Your task to perform on an android device: Search for Mexican restaurants on Maps Image 0: 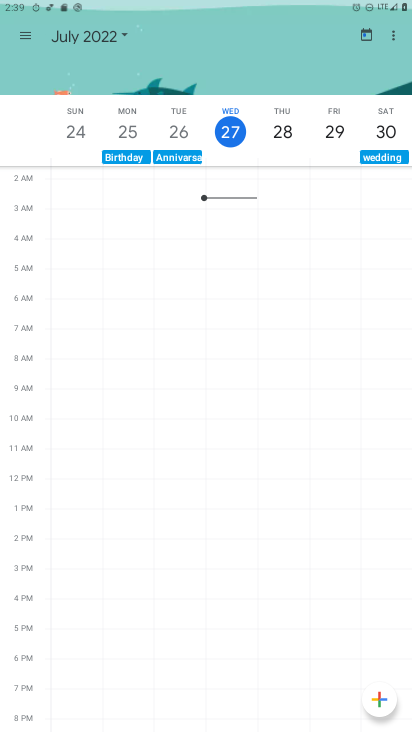
Step 0: press home button
Your task to perform on an android device: Search for Mexican restaurants on Maps Image 1: 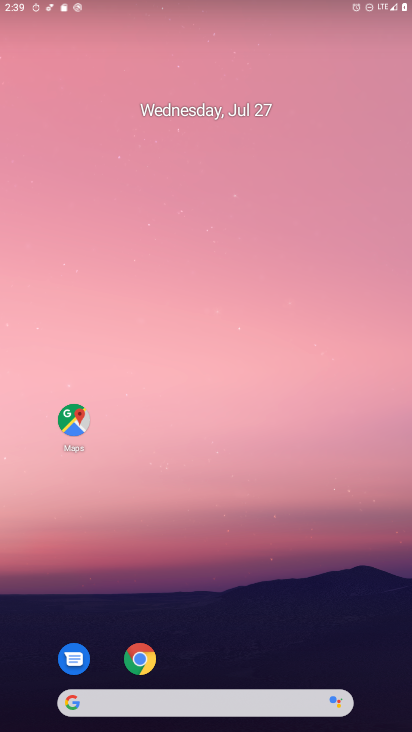
Step 1: drag from (307, 511) to (246, 122)
Your task to perform on an android device: Search for Mexican restaurants on Maps Image 2: 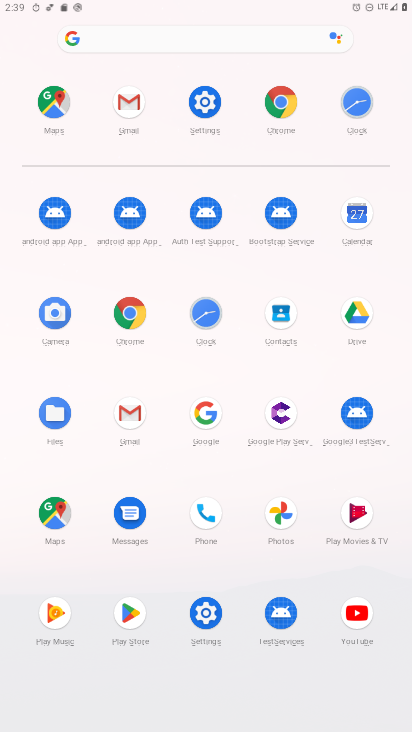
Step 2: click (59, 105)
Your task to perform on an android device: Search for Mexican restaurants on Maps Image 3: 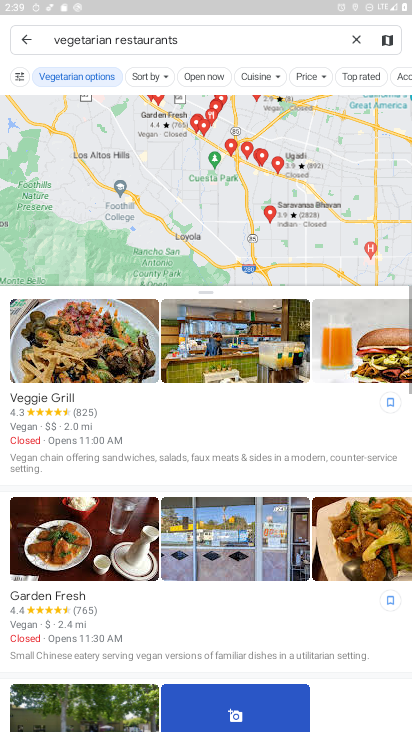
Step 3: click (352, 39)
Your task to perform on an android device: Search for Mexican restaurants on Maps Image 4: 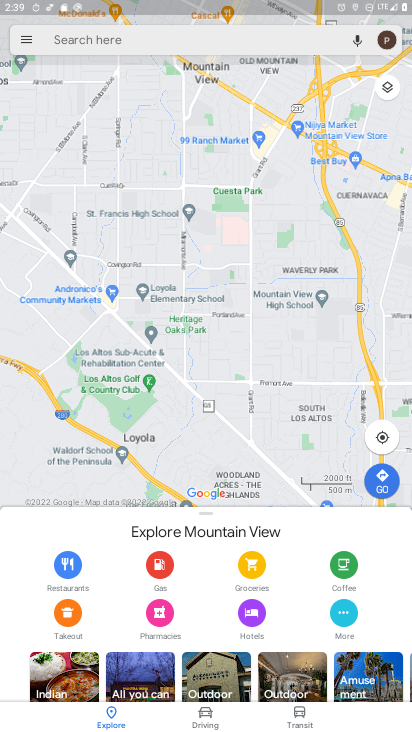
Step 4: click (265, 48)
Your task to perform on an android device: Search for Mexican restaurants on Maps Image 5: 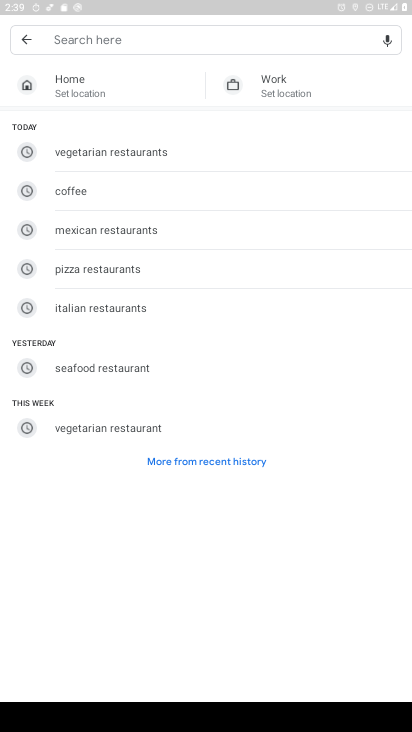
Step 5: type "Mexican "
Your task to perform on an android device: Search for Mexican restaurants on Maps Image 6: 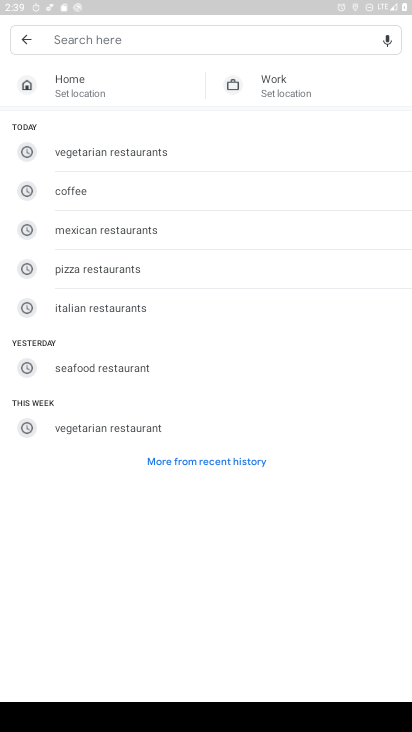
Step 6: click (123, 237)
Your task to perform on an android device: Search for Mexican restaurants on Maps Image 7: 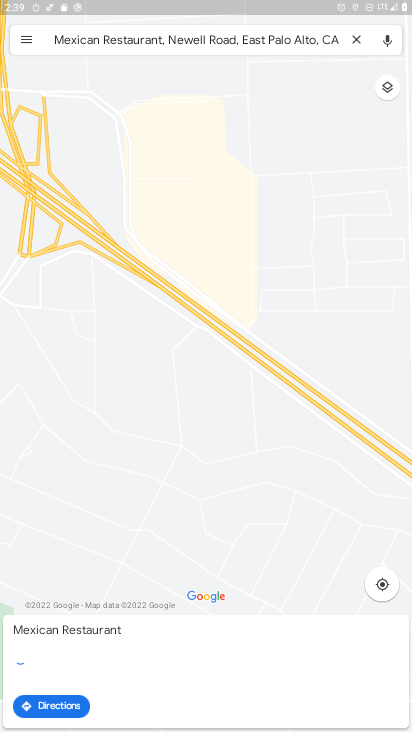
Step 7: click (214, 33)
Your task to perform on an android device: Search for Mexican restaurants on Maps Image 8: 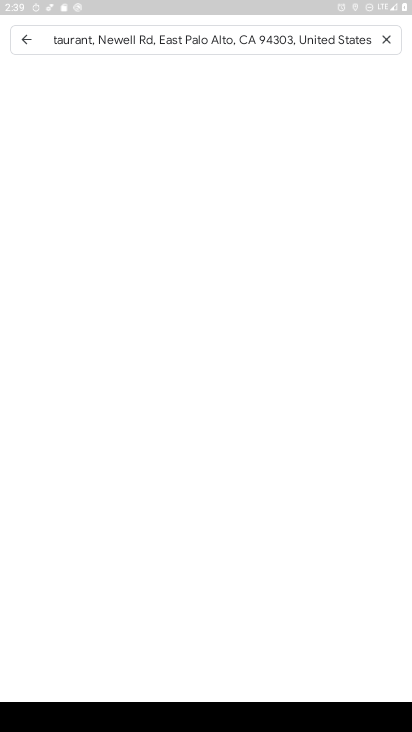
Step 8: click (387, 37)
Your task to perform on an android device: Search for Mexican restaurants on Maps Image 9: 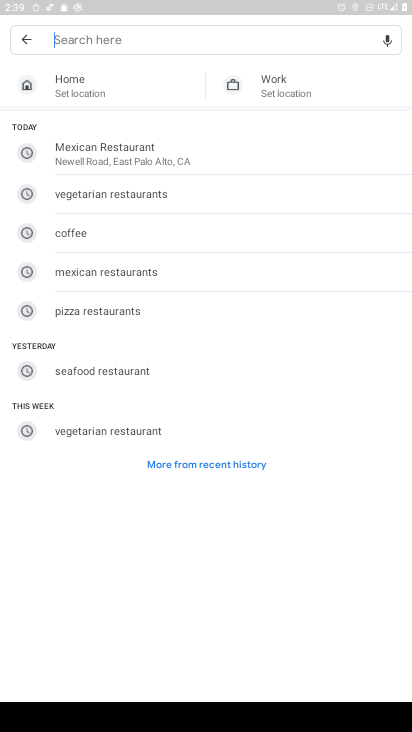
Step 9: type "Mexican restaurants"
Your task to perform on an android device: Search for Mexican restaurants on Maps Image 10: 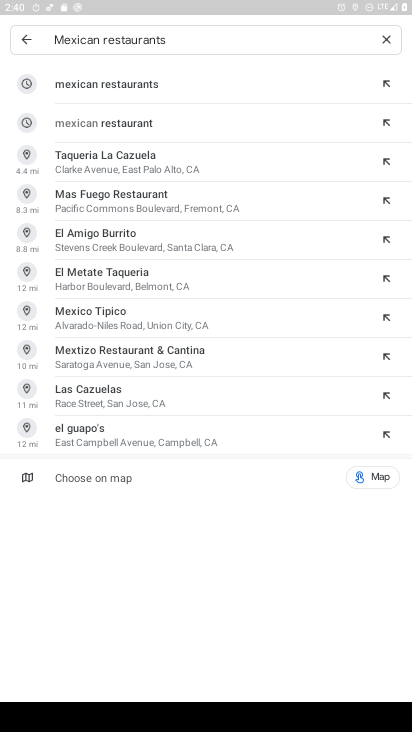
Step 10: click (175, 82)
Your task to perform on an android device: Search for Mexican restaurants on Maps Image 11: 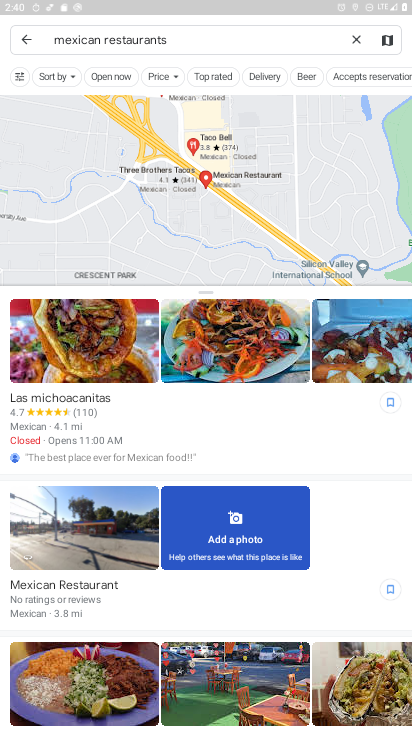
Step 11: task complete